Your task to perform on an android device: open chrome and create a bookmark for the current page Image 0: 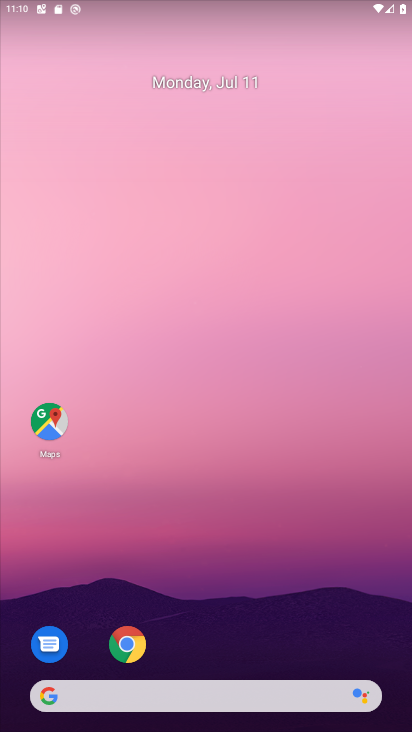
Step 0: click (126, 646)
Your task to perform on an android device: open chrome and create a bookmark for the current page Image 1: 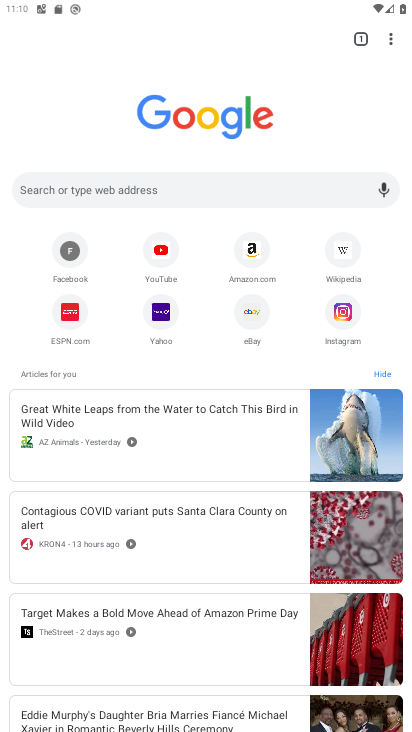
Step 1: click (394, 39)
Your task to perform on an android device: open chrome and create a bookmark for the current page Image 2: 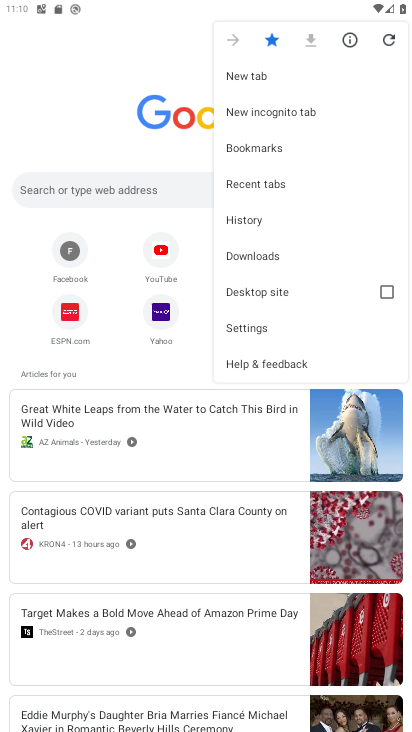
Step 2: task complete